Your task to perform on an android device: Go to ESPN.com Image 0: 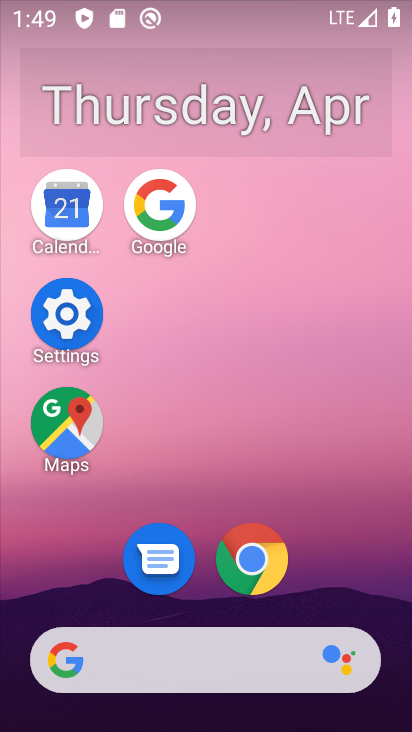
Step 0: click (265, 565)
Your task to perform on an android device: Go to ESPN.com Image 1: 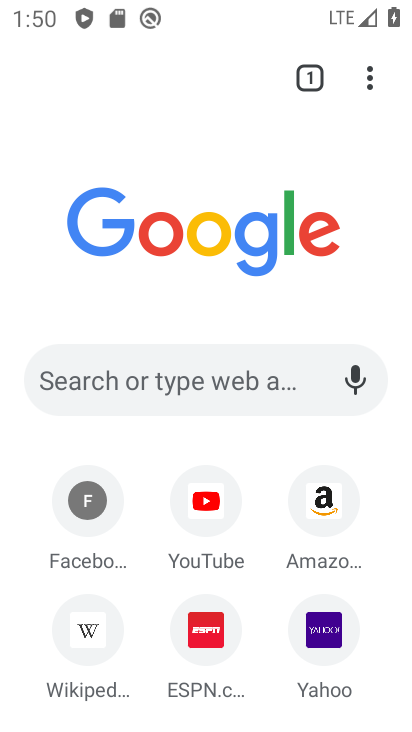
Step 1: click (184, 393)
Your task to perform on an android device: Go to ESPN.com Image 2: 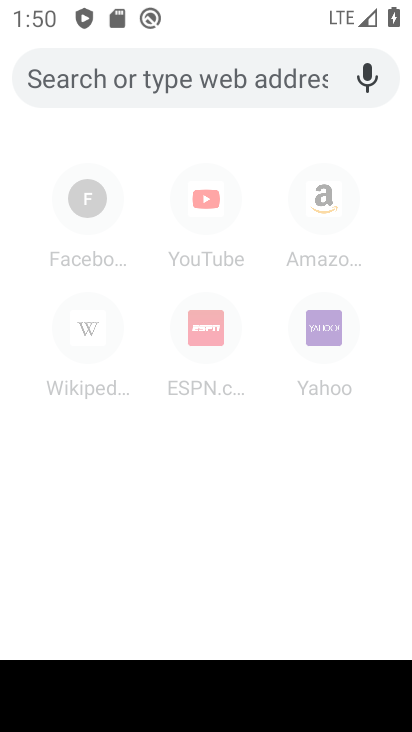
Step 2: type "espn"
Your task to perform on an android device: Go to ESPN.com Image 3: 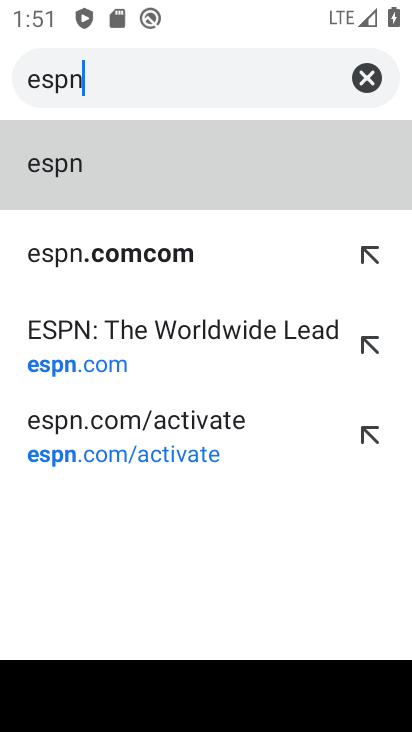
Step 3: click (174, 260)
Your task to perform on an android device: Go to ESPN.com Image 4: 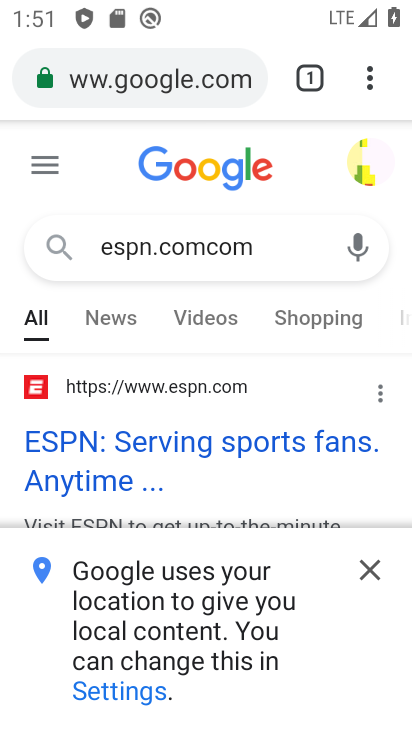
Step 4: click (210, 439)
Your task to perform on an android device: Go to ESPN.com Image 5: 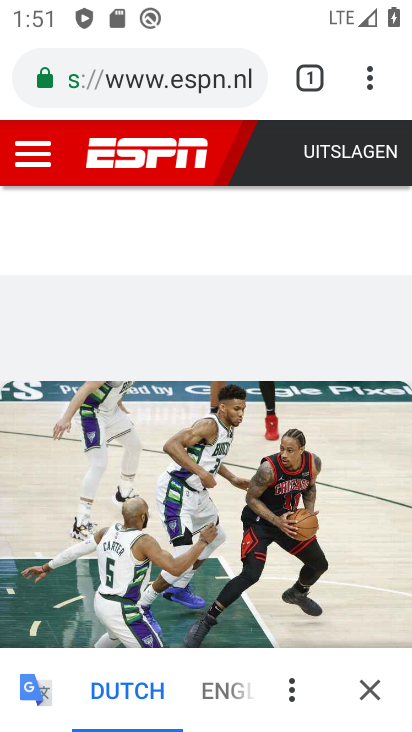
Step 5: task complete